Your task to perform on an android device: Is it going to rain today? Image 0: 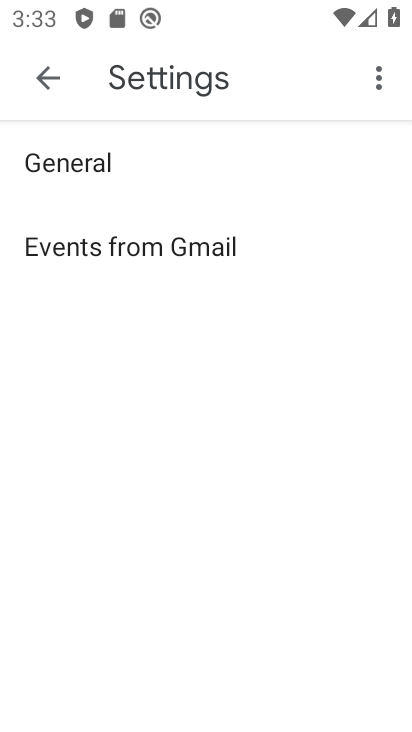
Step 0: press home button
Your task to perform on an android device: Is it going to rain today? Image 1: 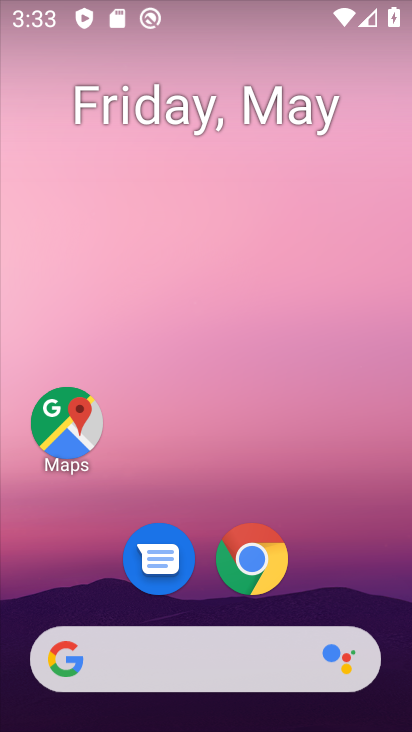
Step 1: drag from (31, 292) to (412, 272)
Your task to perform on an android device: Is it going to rain today? Image 2: 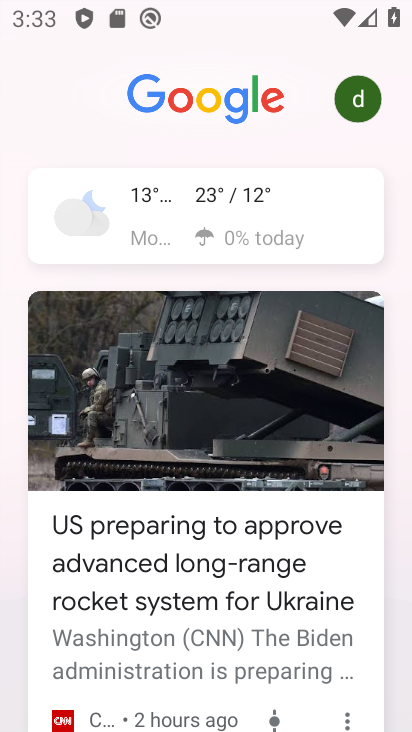
Step 2: click (254, 221)
Your task to perform on an android device: Is it going to rain today? Image 3: 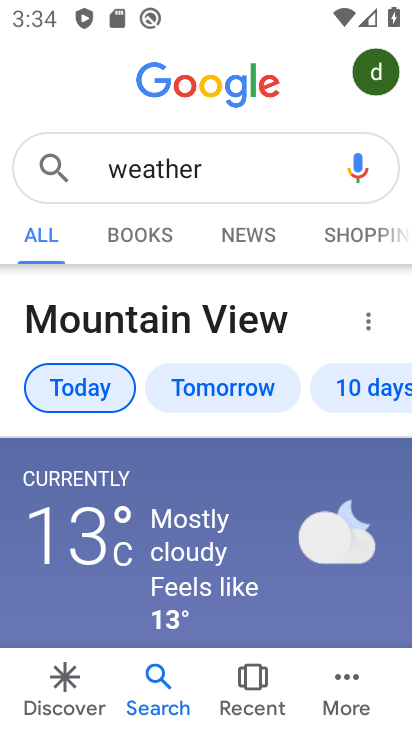
Step 3: task complete